Your task to perform on an android device: turn pop-ups off in chrome Image 0: 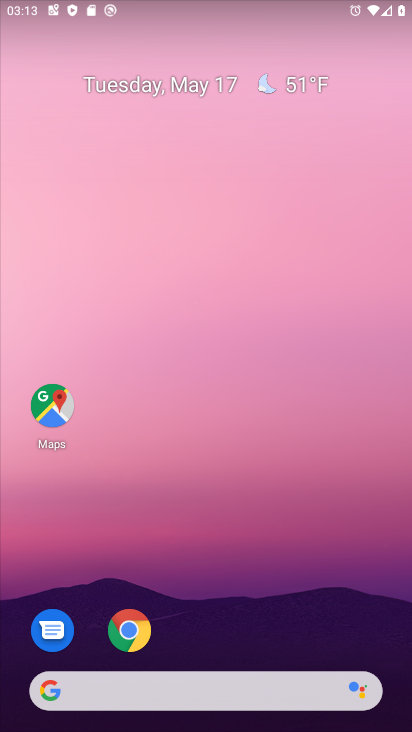
Step 0: click (137, 627)
Your task to perform on an android device: turn pop-ups off in chrome Image 1: 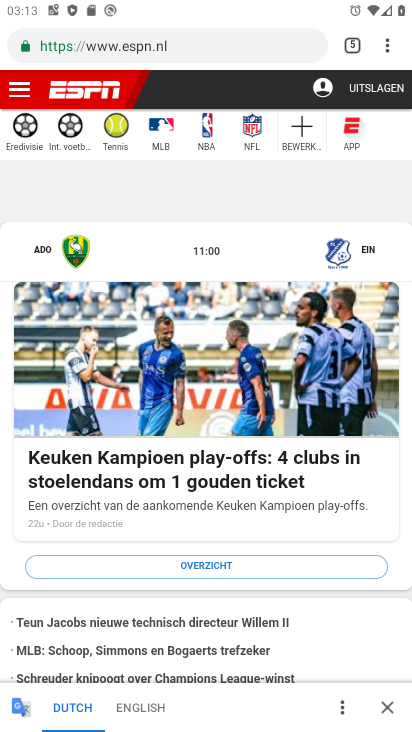
Step 1: drag from (382, 49) to (222, 547)
Your task to perform on an android device: turn pop-ups off in chrome Image 2: 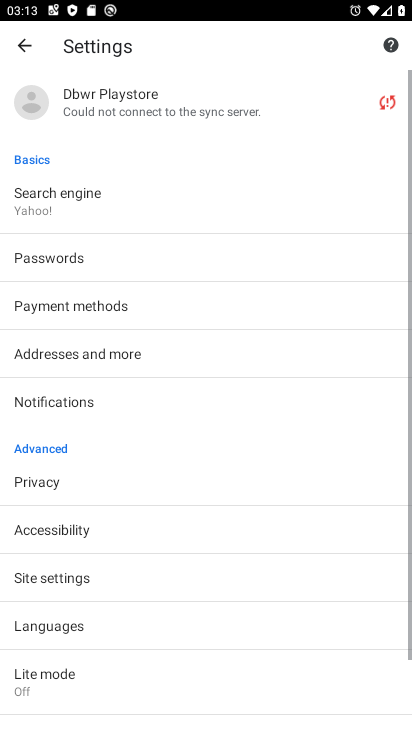
Step 2: drag from (163, 601) to (268, 123)
Your task to perform on an android device: turn pop-ups off in chrome Image 3: 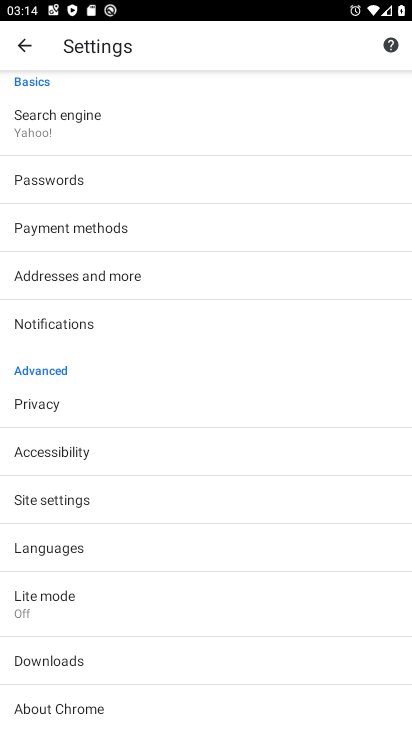
Step 3: click (95, 494)
Your task to perform on an android device: turn pop-ups off in chrome Image 4: 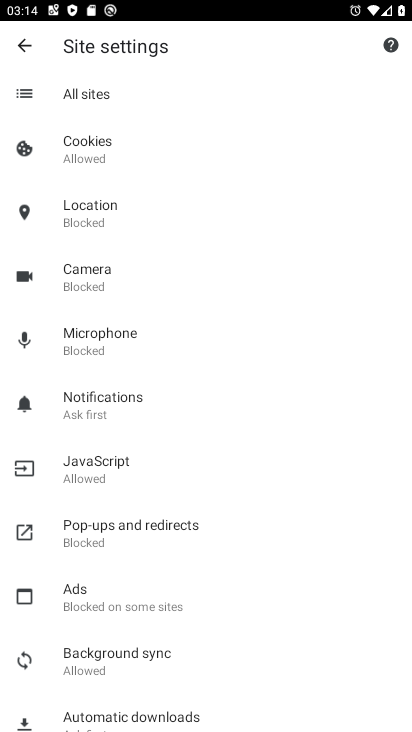
Step 4: click (108, 527)
Your task to perform on an android device: turn pop-ups off in chrome Image 5: 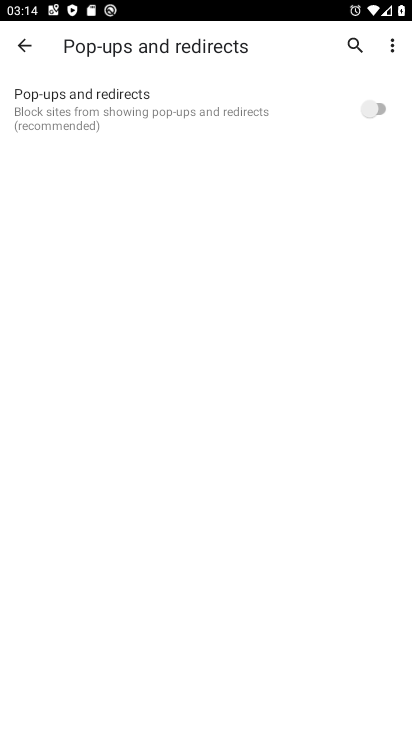
Step 5: task complete